Your task to perform on an android device: uninstall "Adobe Acrobat Reader" Image 0: 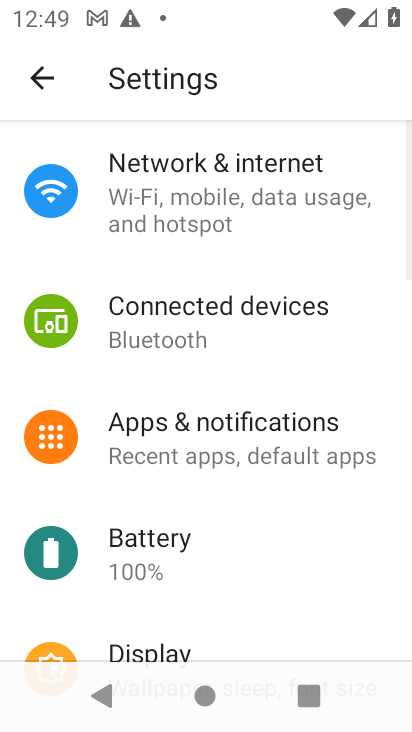
Step 0: press home button
Your task to perform on an android device: uninstall "Adobe Acrobat Reader" Image 1: 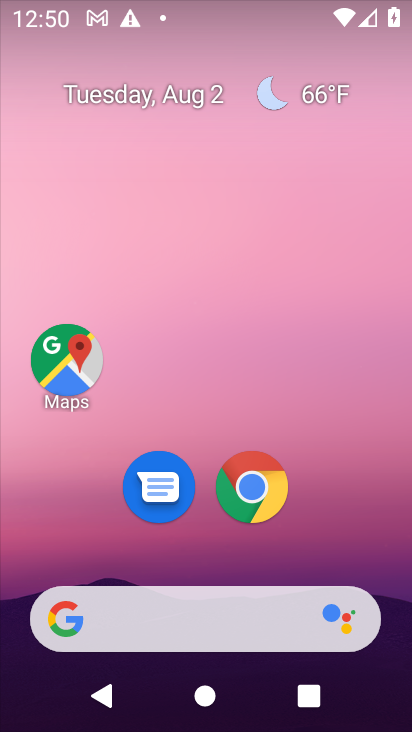
Step 1: drag from (237, 600) to (256, 41)
Your task to perform on an android device: uninstall "Adobe Acrobat Reader" Image 2: 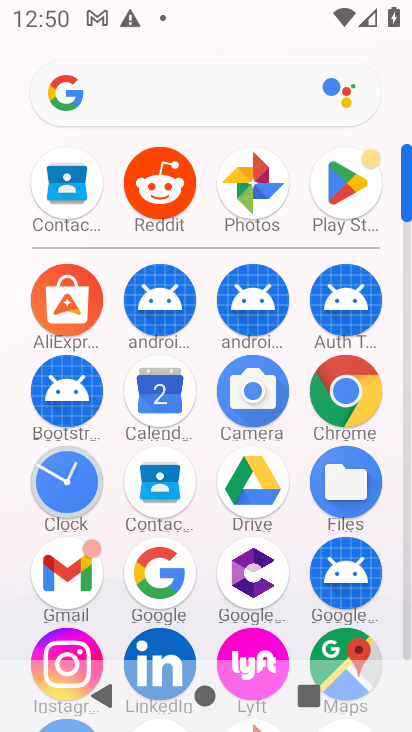
Step 2: click (351, 179)
Your task to perform on an android device: uninstall "Adobe Acrobat Reader" Image 3: 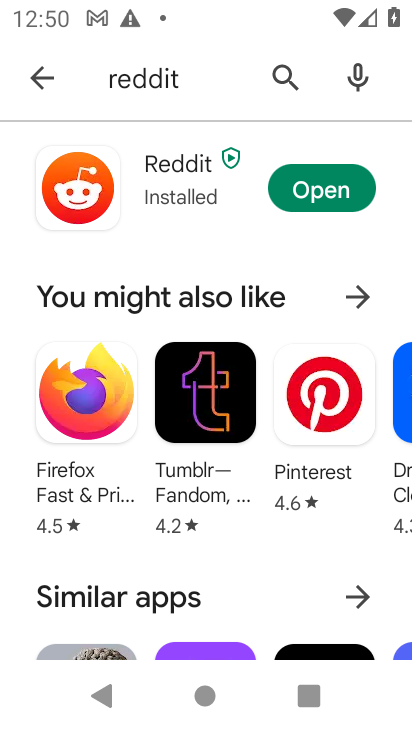
Step 3: click (40, 76)
Your task to perform on an android device: uninstall "Adobe Acrobat Reader" Image 4: 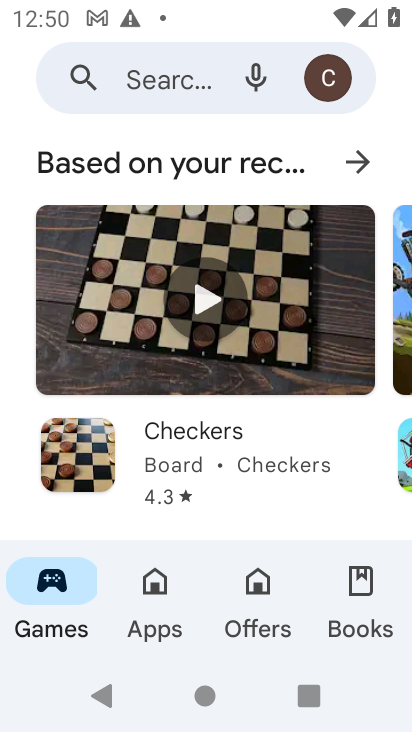
Step 4: click (157, 64)
Your task to perform on an android device: uninstall "Adobe Acrobat Reader" Image 5: 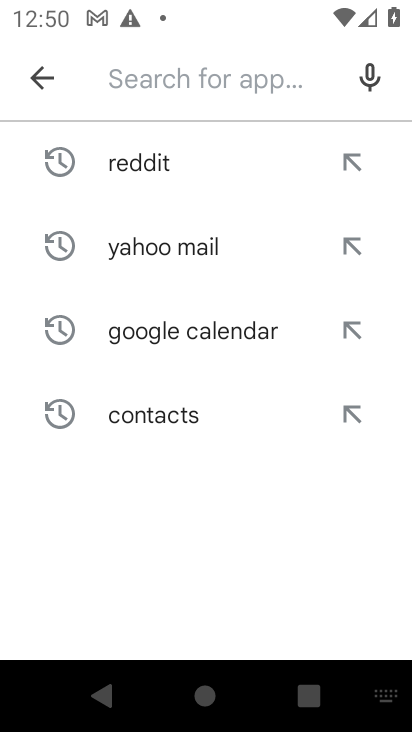
Step 5: type "Adobe Acrobat Reader"
Your task to perform on an android device: uninstall "Adobe Acrobat Reader" Image 6: 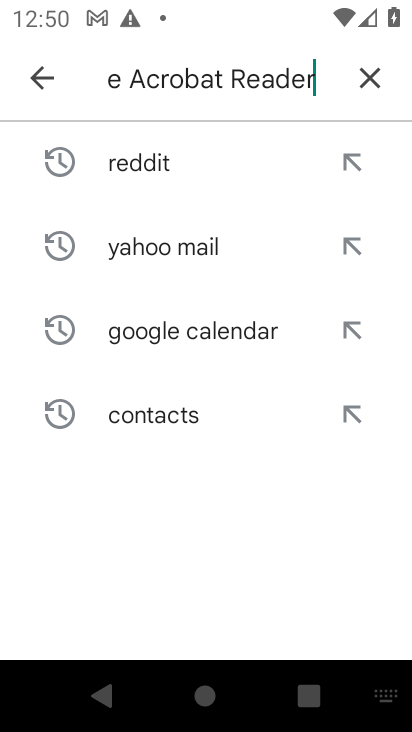
Step 6: type ""
Your task to perform on an android device: uninstall "Adobe Acrobat Reader" Image 7: 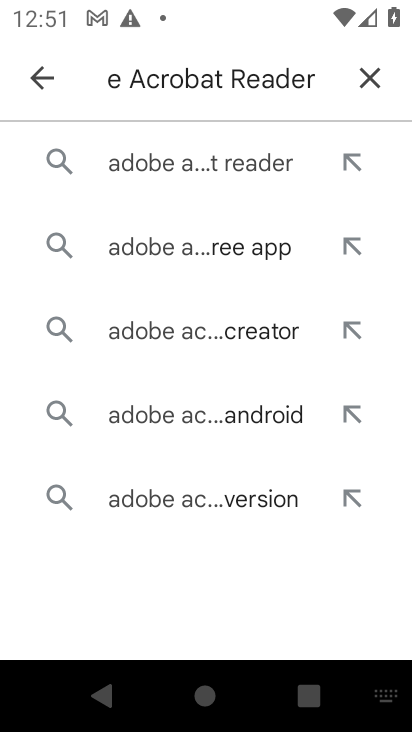
Step 7: click (238, 173)
Your task to perform on an android device: uninstall "Adobe Acrobat Reader" Image 8: 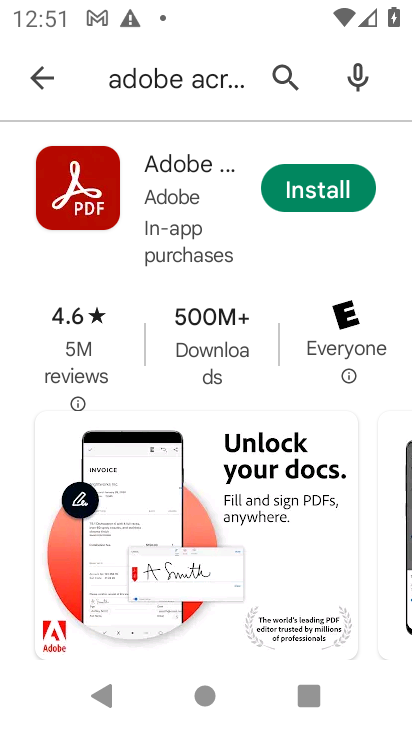
Step 8: task complete